Your task to perform on an android device: Show me the alarms in the clock app Image 0: 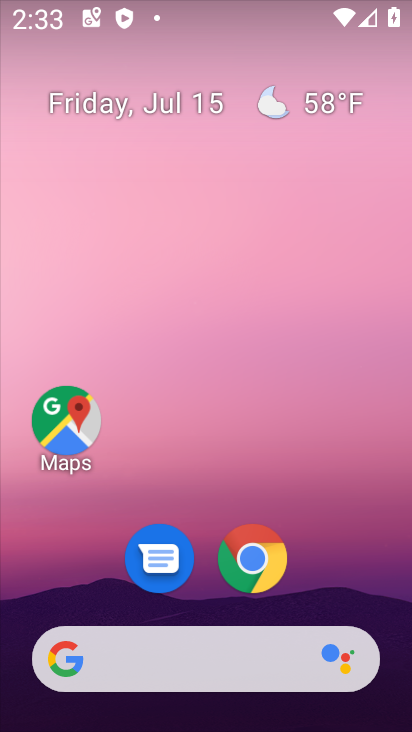
Step 0: drag from (362, 591) to (353, 129)
Your task to perform on an android device: Show me the alarms in the clock app Image 1: 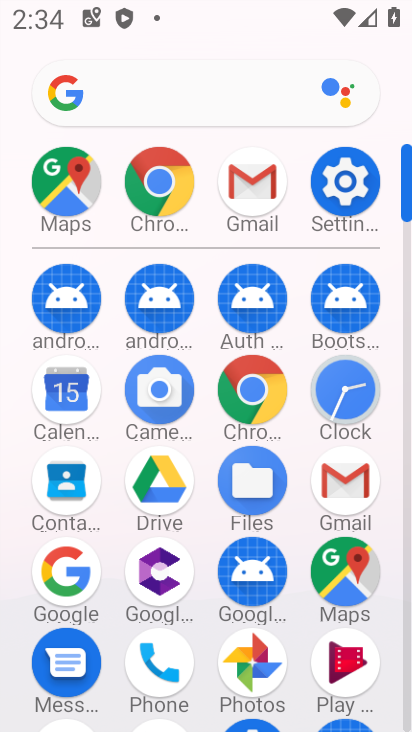
Step 1: click (359, 392)
Your task to perform on an android device: Show me the alarms in the clock app Image 2: 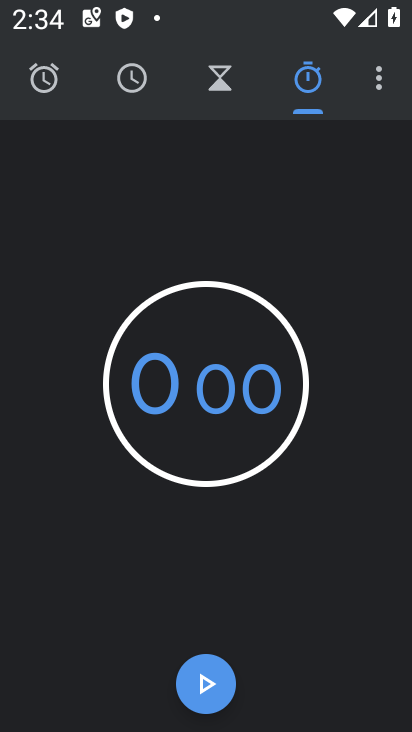
Step 2: click (50, 79)
Your task to perform on an android device: Show me the alarms in the clock app Image 3: 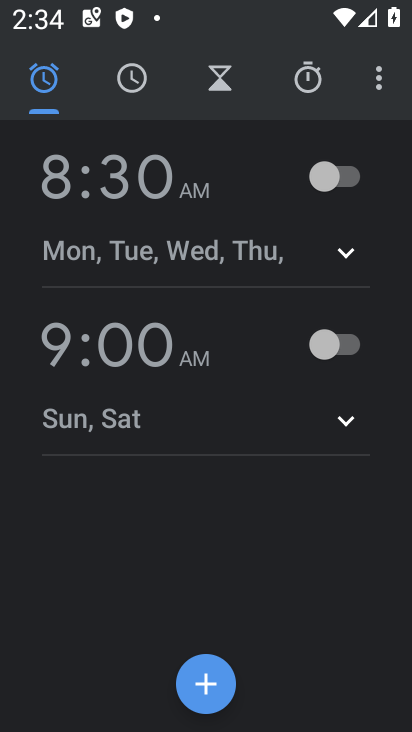
Step 3: task complete